Your task to perform on an android device: Open location settings Image 0: 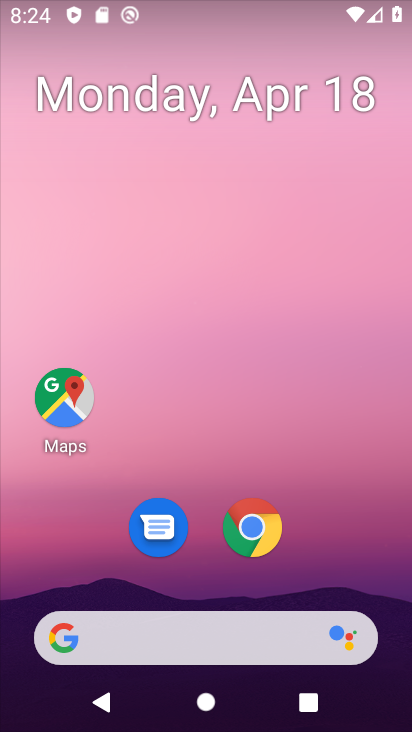
Step 0: drag from (358, 541) to (356, 88)
Your task to perform on an android device: Open location settings Image 1: 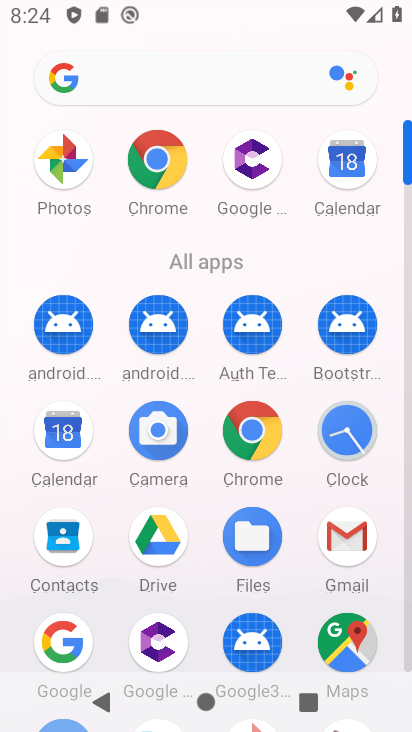
Step 1: drag from (299, 272) to (305, 21)
Your task to perform on an android device: Open location settings Image 2: 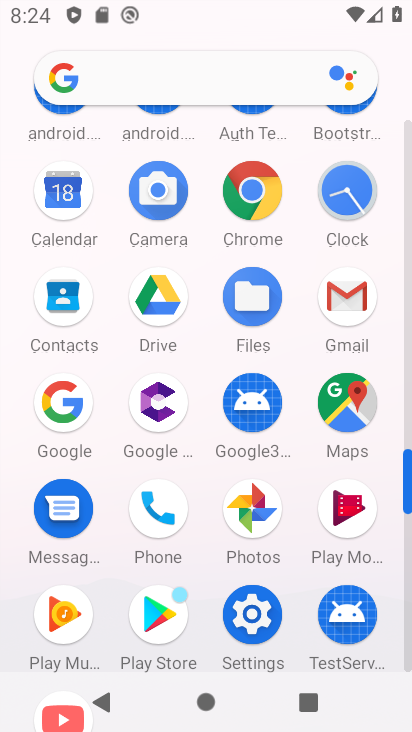
Step 2: click (247, 610)
Your task to perform on an android device: Open location settings Image 3: 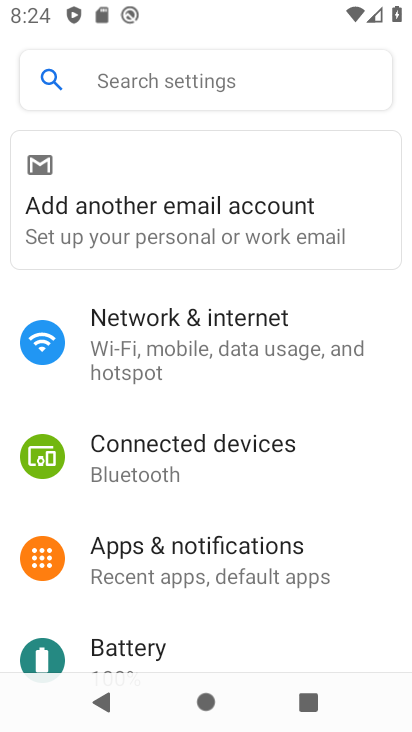
Step 3: drag from (377, 589) to (406, 196)
Your task to perform on an android device: Open location settings Image 4: 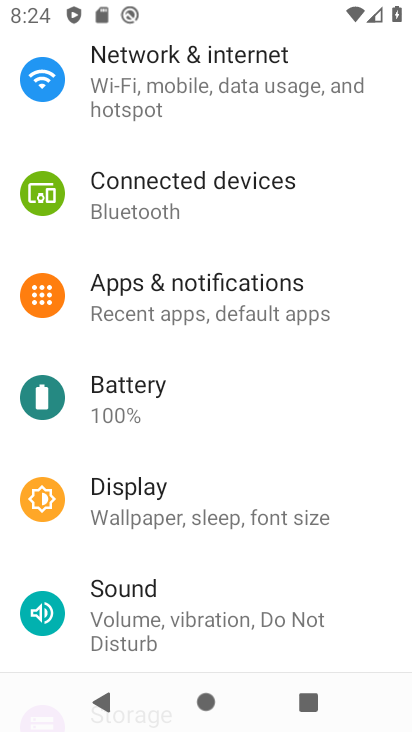
Step 4: drag from (357, 614) to (366, 212)
Your task to perform on an android device: Open location settings Image 5: 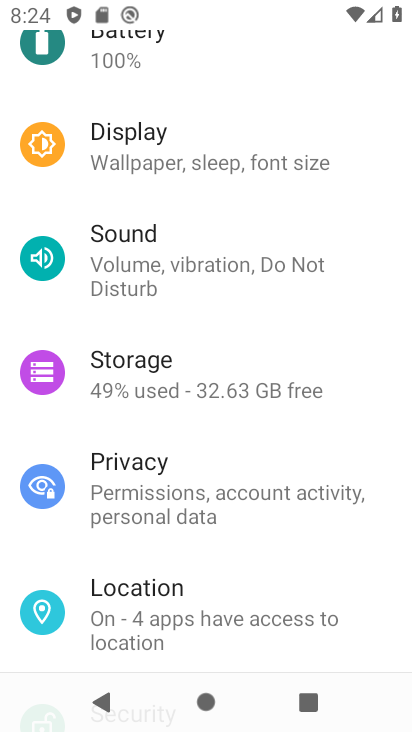
Step 5: click (127, 593)
Your task to perform on an android device: Open location settings Image 6: 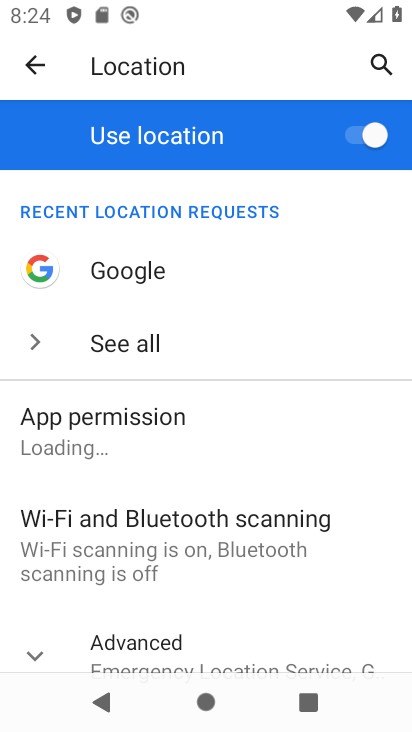
Step 6: task complete